Your task to perform on an android device: When is my next appointment? Image 0: 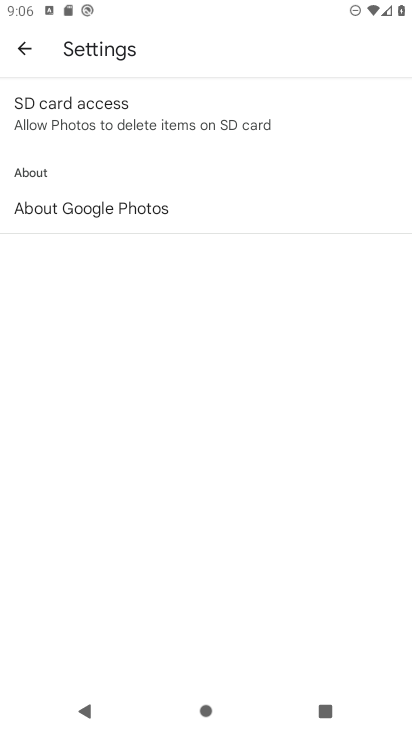
Step 0: press home button
Your task to perform on an android device: When is my next appointment? Image 1: 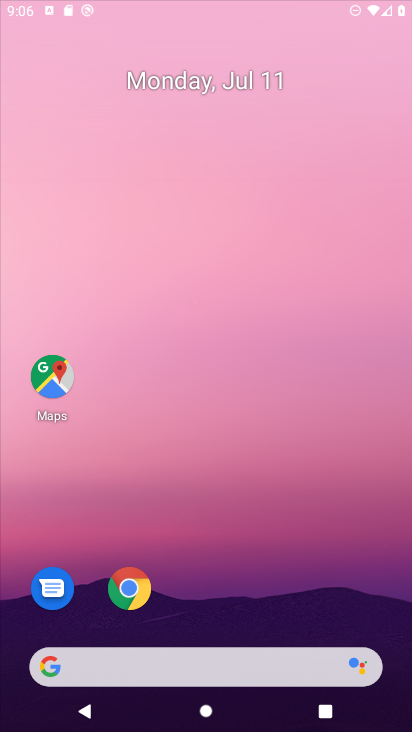
Step 1: drag from (384, 710) to (311, 103)
Your task to perform on an android device: When is my next appointment? Image 2: 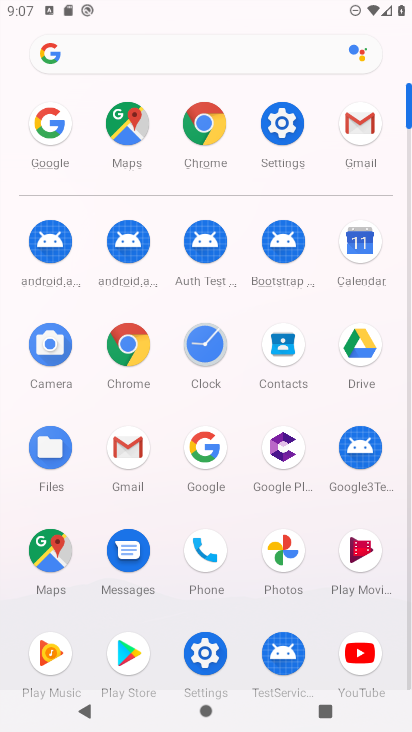
Step 2: click (368, 235)
Your task to perform on an android device: When is my next appointment? Image 3: 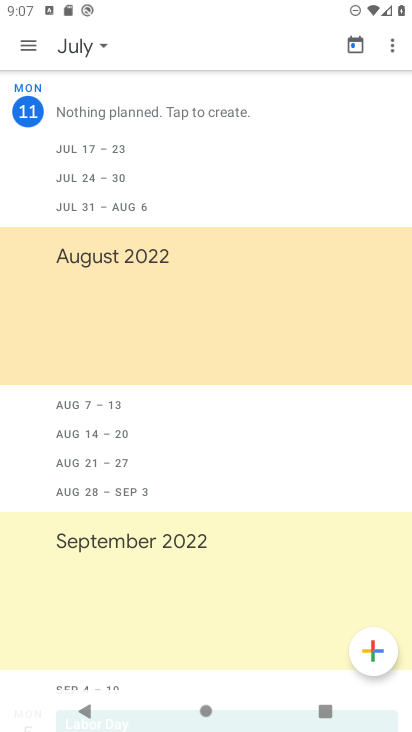
Step 3: task complete